Your task to perform on an android device: What's on my calendar tomorrow? Image 0: 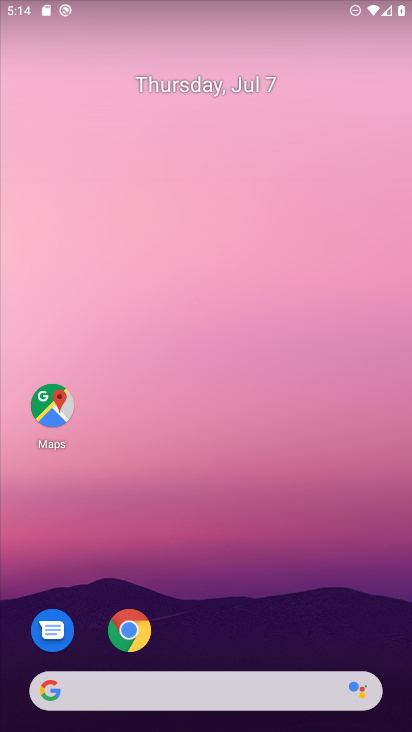
Step 0: press home button
Your task to perform on an android device: What's on my calendar tomorrow? Image 1: 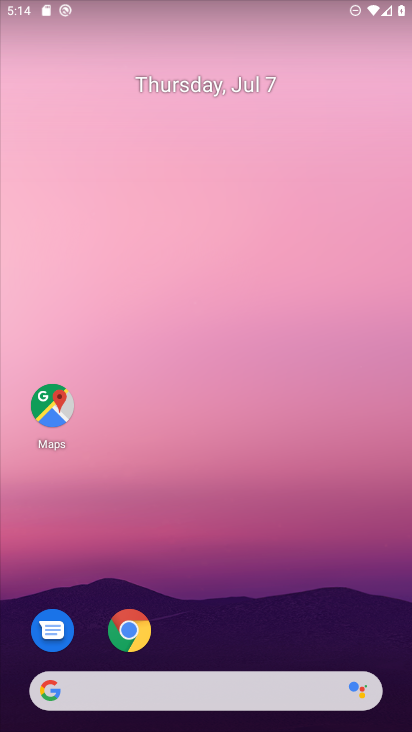
Step 1: drag from (228, 613) to (197, 168)
Your task to perform on an android device: What's on my calendar tomorrow? Image 2: 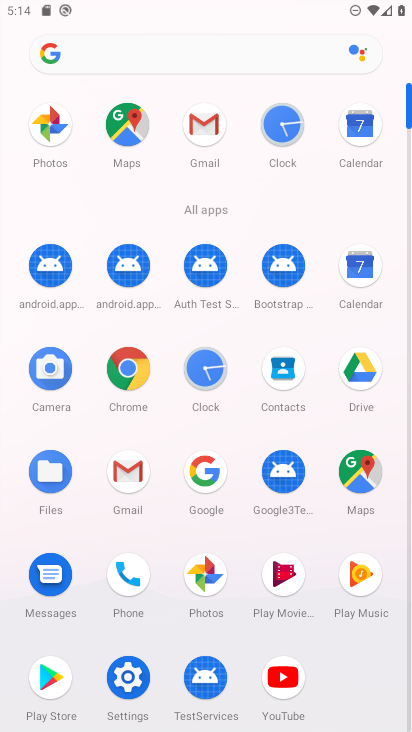
Step 2: click (363, 277)
Your task to perform on an android device: What's on my calendar tomorrow? Image 3: 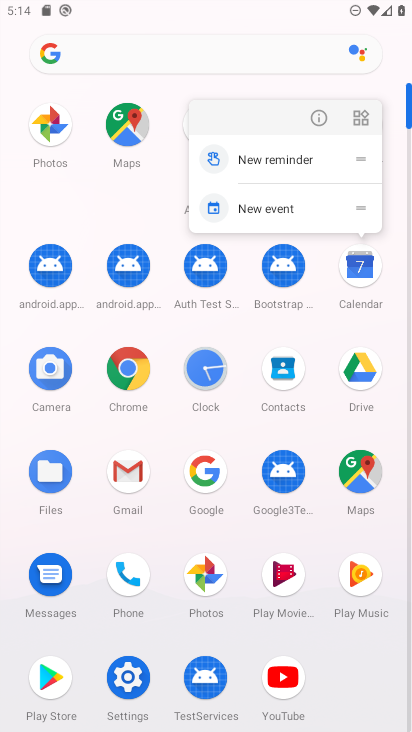
Step 3: click (363, 277)
Your task to perform on an android device: What's on my calendar tomorrow? Image 4: 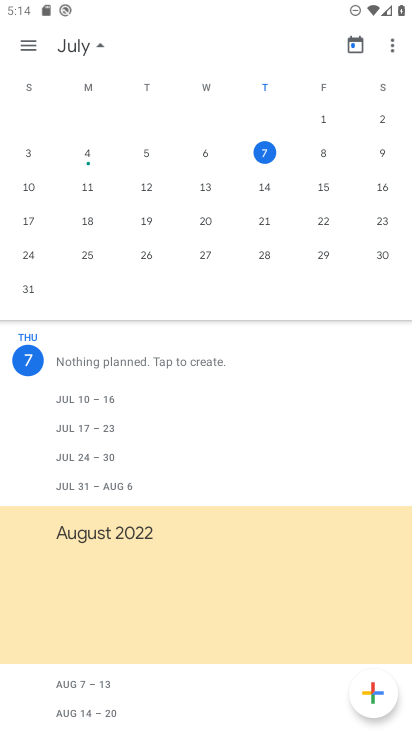
Step 4: click (323, 155)
Your task to perform on an android device: What's on my calendar tomorrow? Image 5: 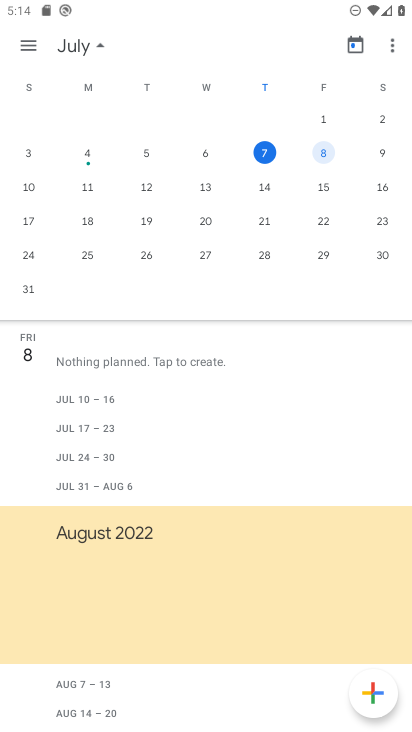
Step 5: task complete